Your task to perform on an android device: toggle priority inbox in the gmail app Image 0: 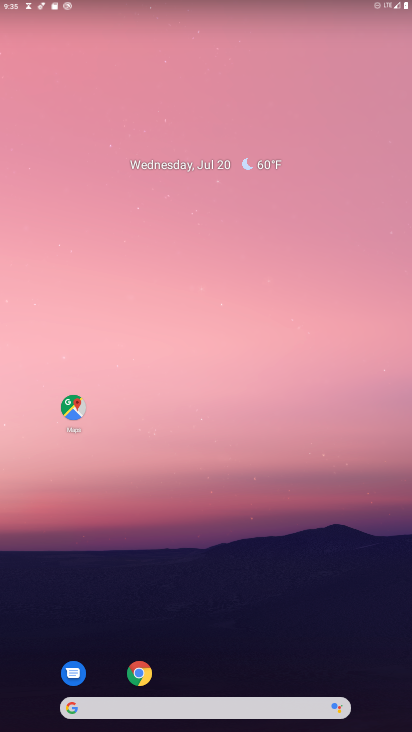
Step 0: drag from (202, 530) to (148, 94)
Your task to perform on an android device: toggle priority inbox in the gmail app Image 1: 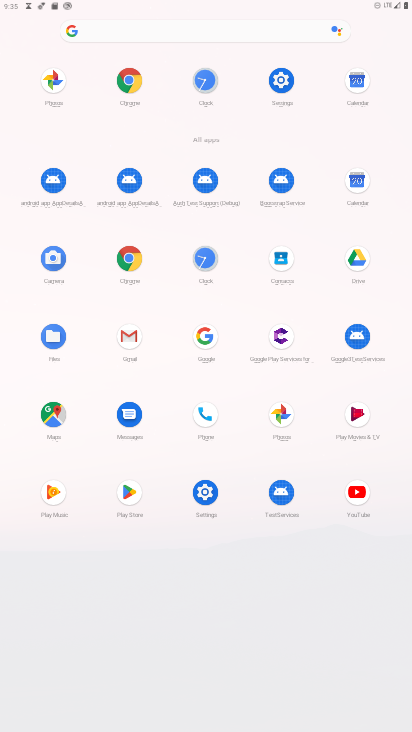
Step 1: click (130, 340)
Your task to perform on an android device: toggle priority inbox in the gmail app Image 2: 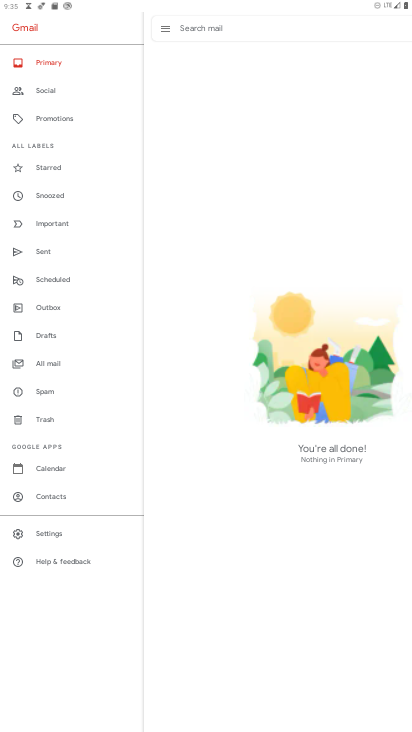
Step 2: click (46, 537)
Your task to perform on an android device: toggle priority inbox in the gmail app Image 3: 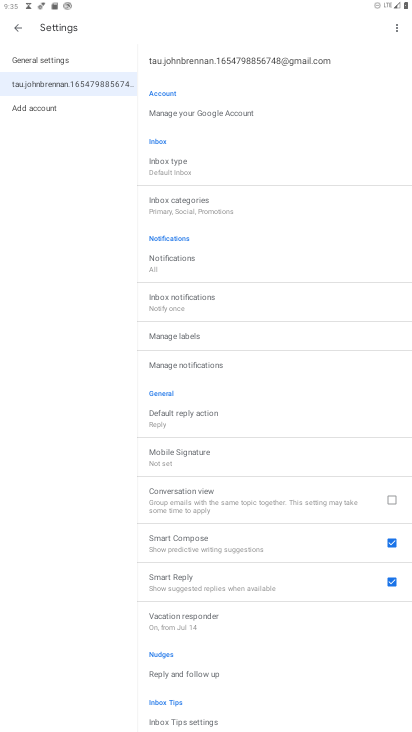
Step 3: click (170, 169)
Your task to perform on an android device: toggle priority inbox in the gmail app Image 4: 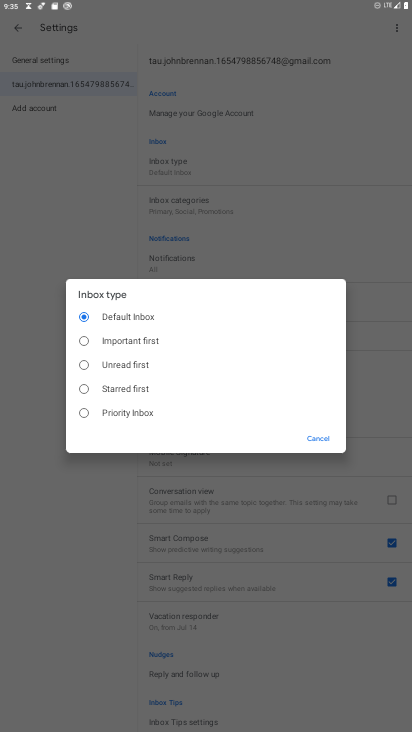
Step 4: click (84, 413)
Your task to perform on an android device: toggle priority inbox in the gmail app Image 5: 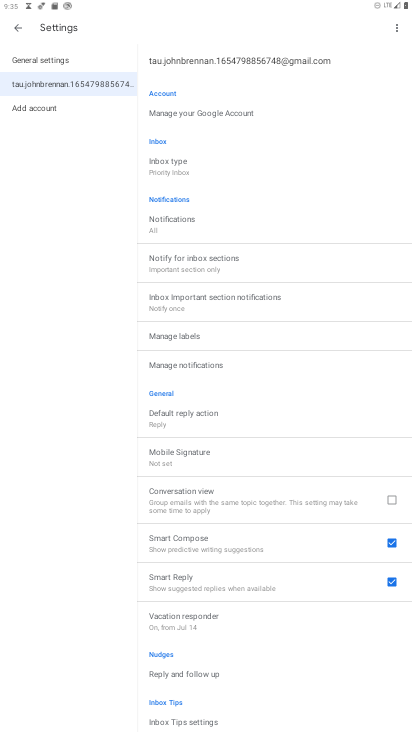
Step 5: task complete